Your task to perform on an android device: open device folders in google photos Image 0: 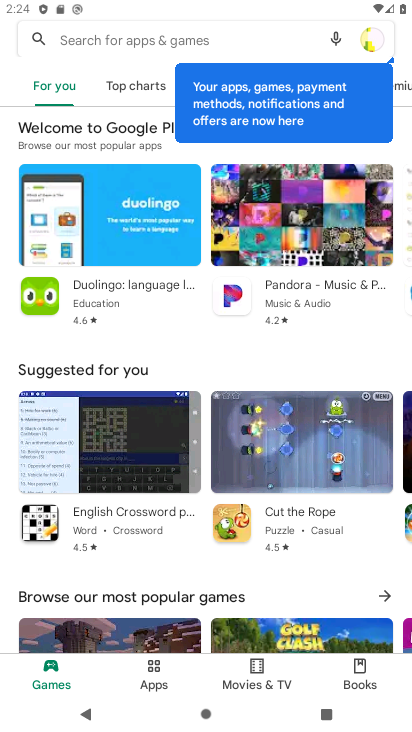
Step 0: press home button
Your task to perform on an android device: open device folders in google photos Image 1: 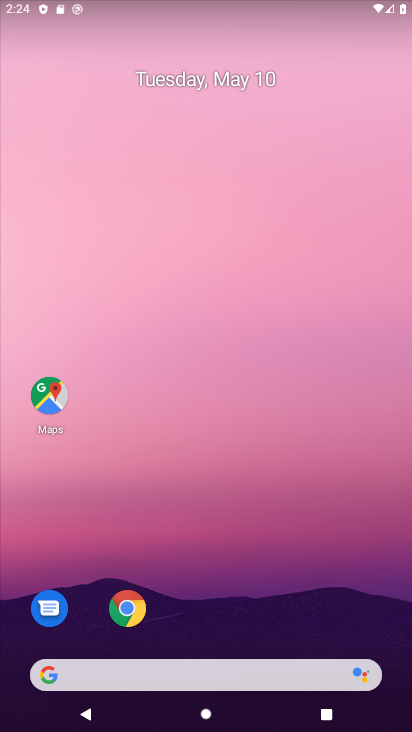
Step 1: drag from (385, 640) to (298, 101)
Your task to perform on an android device: open device folders in google photos Image 2: 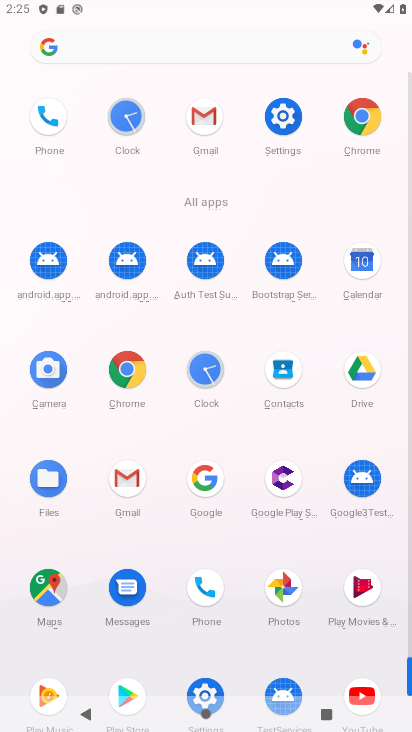
Step 2: click (283, 586)
Your task to perform on an android device: open device folders in google photos Image 3: 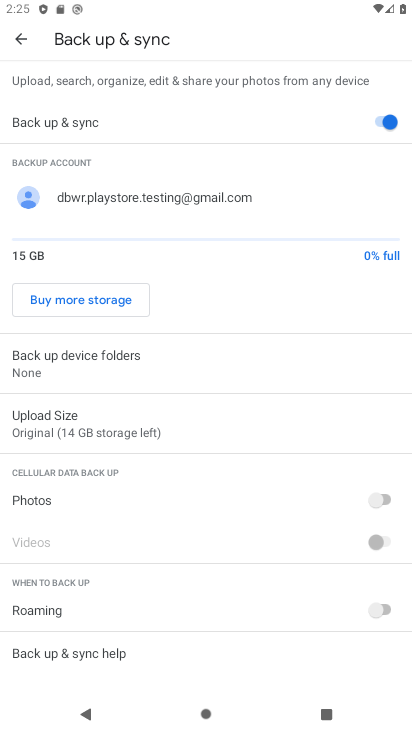
Step 3: press back button
Your task to perform on an android device: open device folders in google photos Image 4: 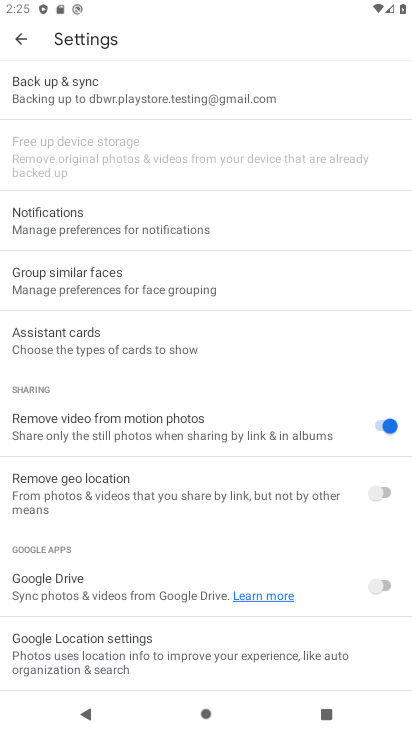
Step 4: press back button
Your task to perform on an android device: open device folders in google photos Image 5: 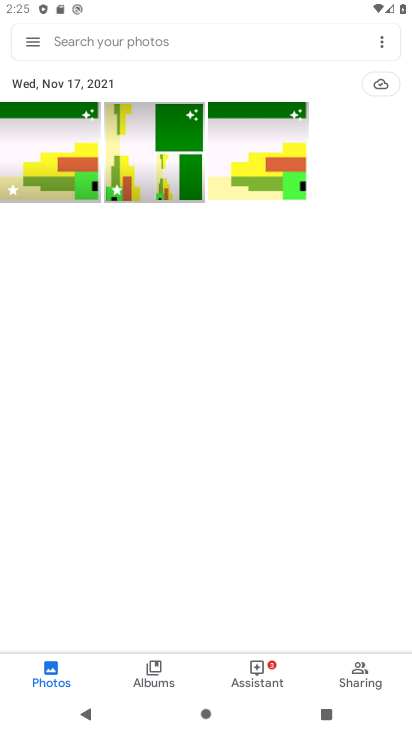
Step 5: click (31, 41)
Your task to perform on an android device: open device folders in google photos Image 6: 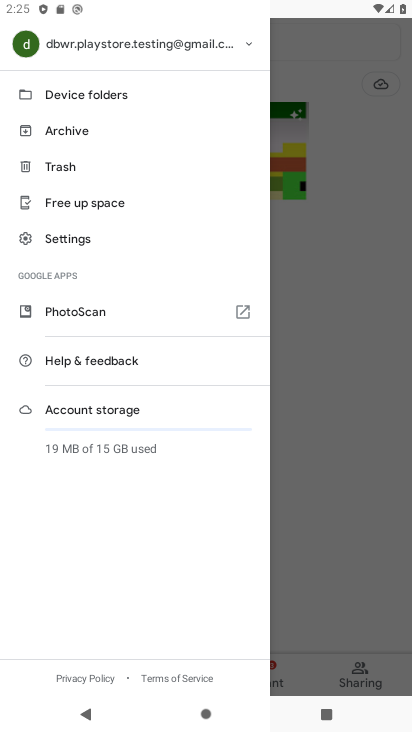
Step 6: click (84, 90)
Your task to perform on an android device: open device folders in google photos Image 7: 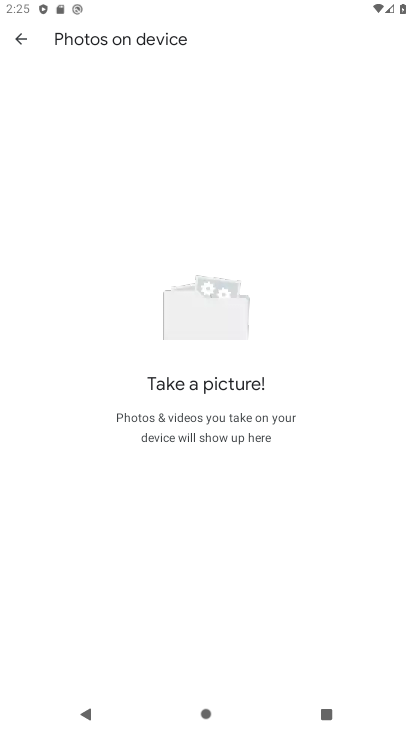
Step 7: task complete